Your task to perform on an android device: turn on priority inbox in the gmail app Image 0: 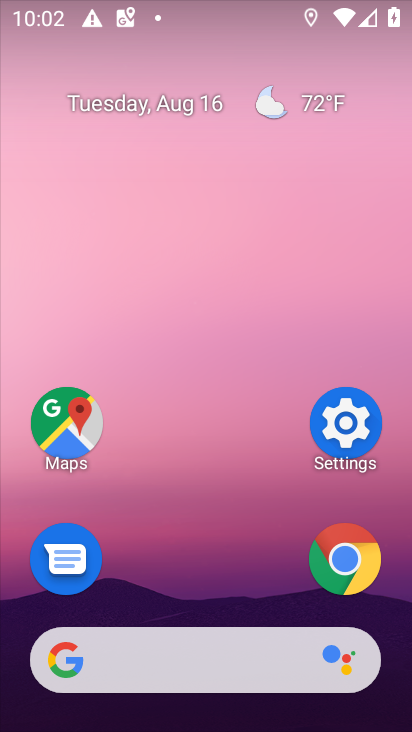
Step 0: drag from (181, 597) to (328, 144)
Your task to perform on an android device: turn on priority inbox in the gmail app Image 1: 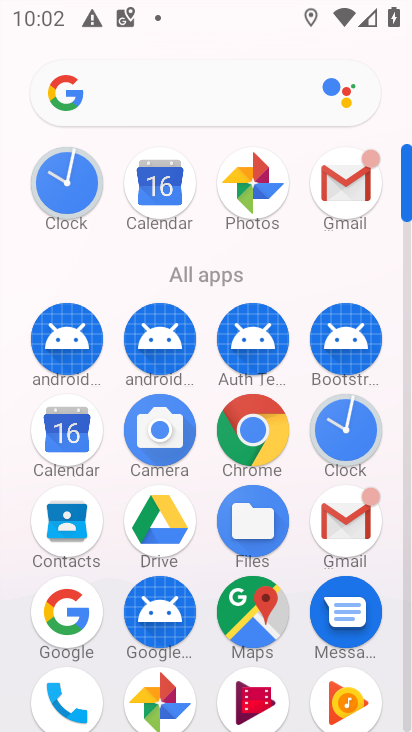
Step 1: click (351, 183)
Your task to perform on an android device: turn on priority inbox in the gmail app Image 2: 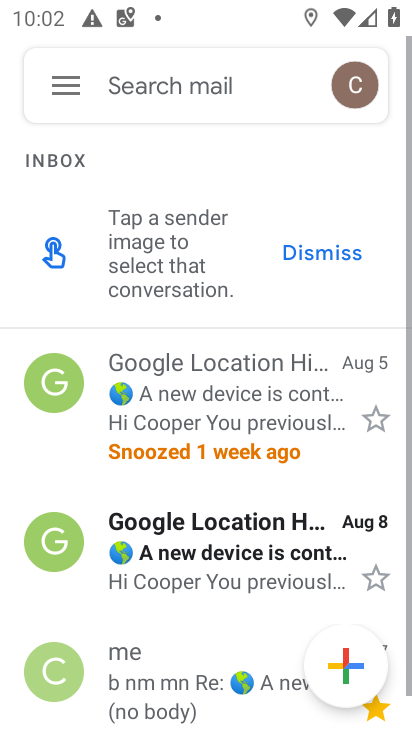
Step 2: click (67, 80)
Your task to perform on an android device: turn on priority inbox in the gmail app Image 3: 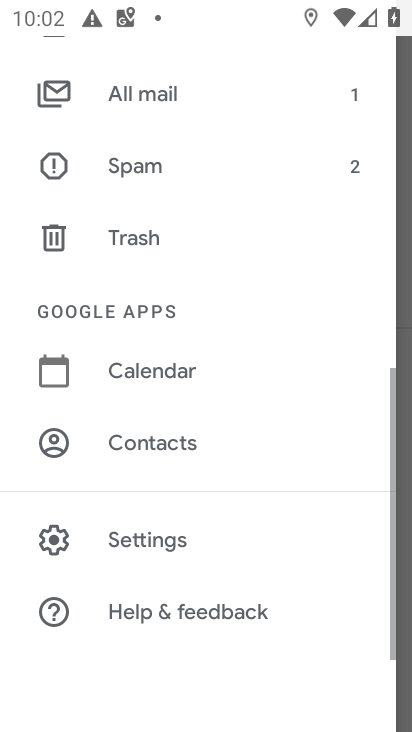
Step 3: click (147, 537)
Your task to perform on an android device: turn on priority inbox in the gmail app Image 4: 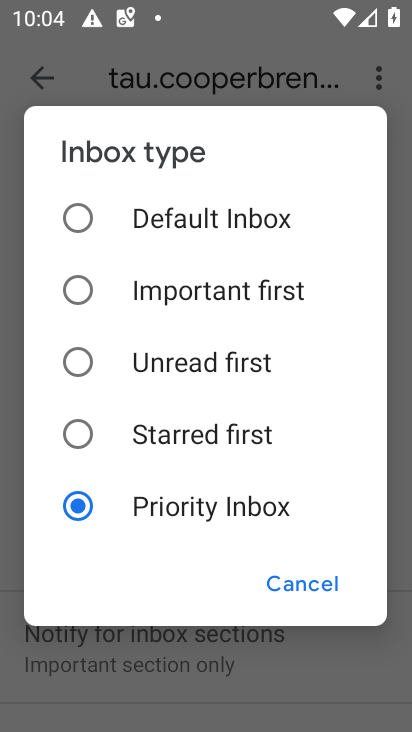
Step 4: task complete